Your task to perform on an android device: check the backup settings in the google photos Image 0: 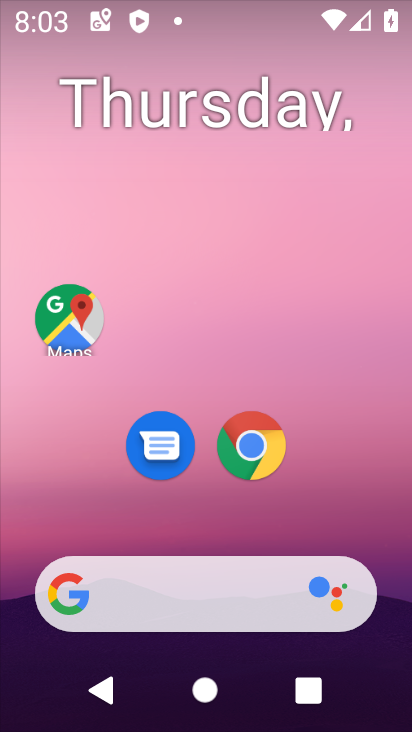
Step 0: drag from (349, 492) to (304, 41)
Your task to perform on an android device: check the backup settings in the google photos Image 1: 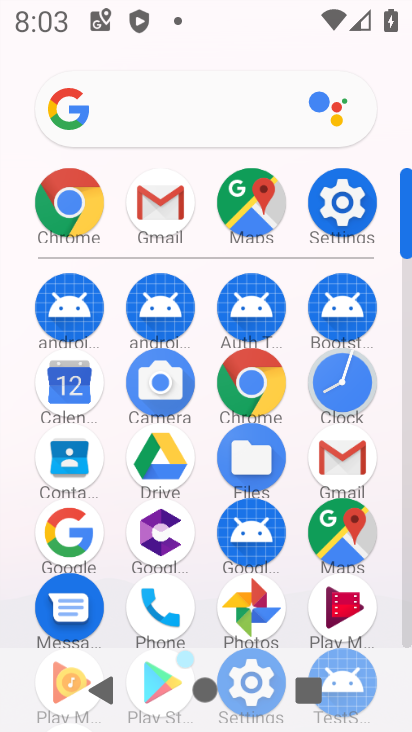
Step 1: click (253, 609)
Your task to perform on an android device: check the backup settings in the google photos Image 2: 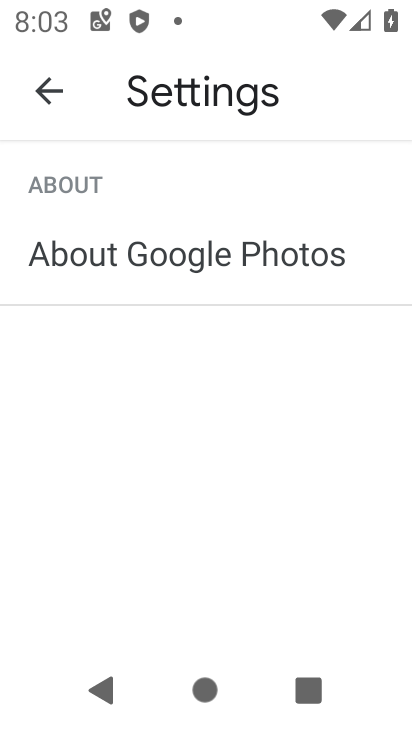
Step 2: click (56, 84)
Your task to perform on an android device: check the backup settings in the google photos Image 3: 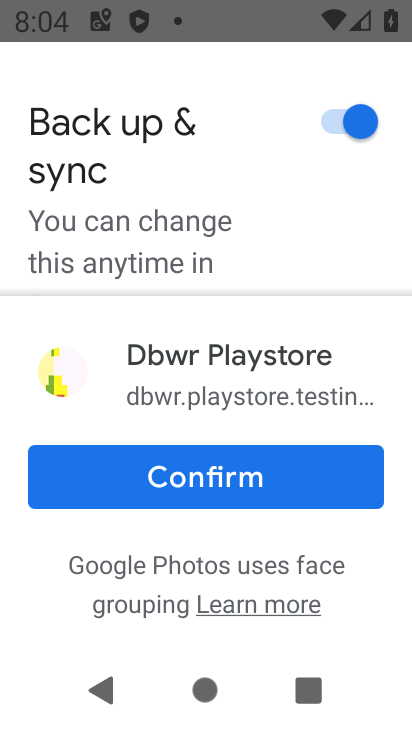
Step 3: click (110, 480)
Your task to perform on an android device: check the backup settings in the google photos Image 4: 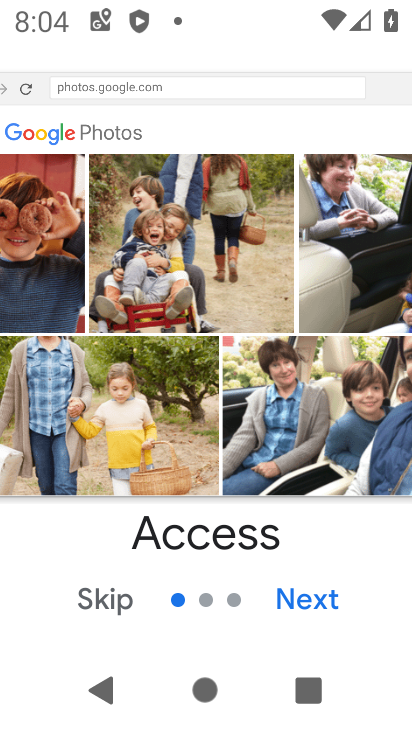
Step 4: click (295, 607)
Your task to perform on an android device: check the backup settings in the google photos Image 5: 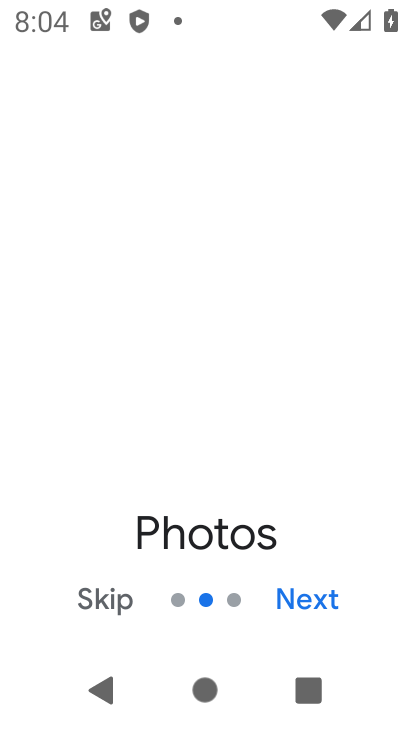
Step 5: click (295, 607)
Your task to perform on an android device: check the backup settings in the google photos Image 6: 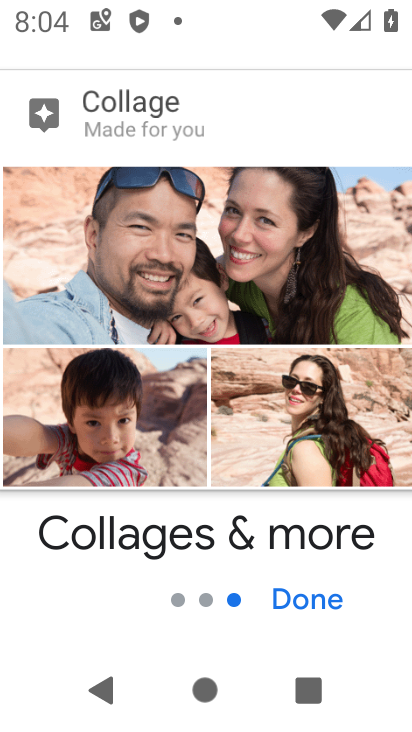
Step 6: click (296, 606)
Your task to perform on an android device: check the backup settings in the google photos Image 7: 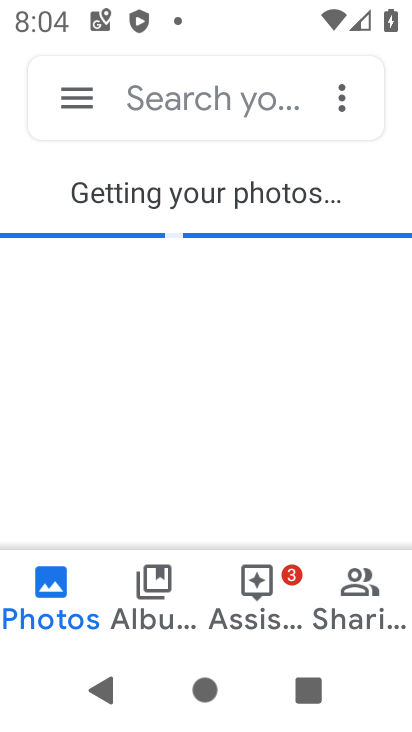
Step 7: click (75, 93)
Your task to perform on an android device: check the backup settings in the google photos Image 8: 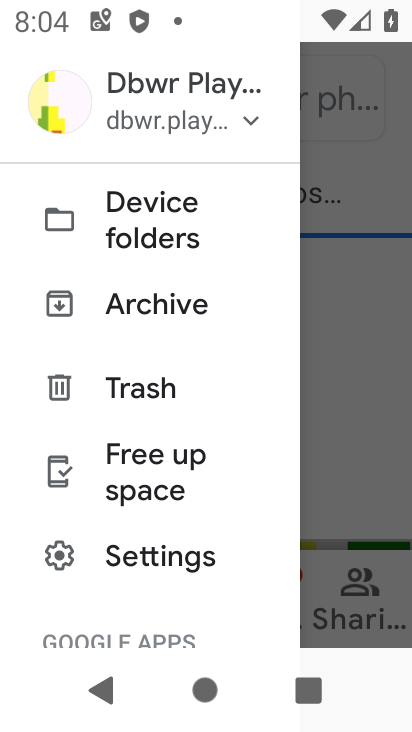
Step 8: click (171, 549)
Your task to perform on an android device: check the backup settings in the google photos Image 9: 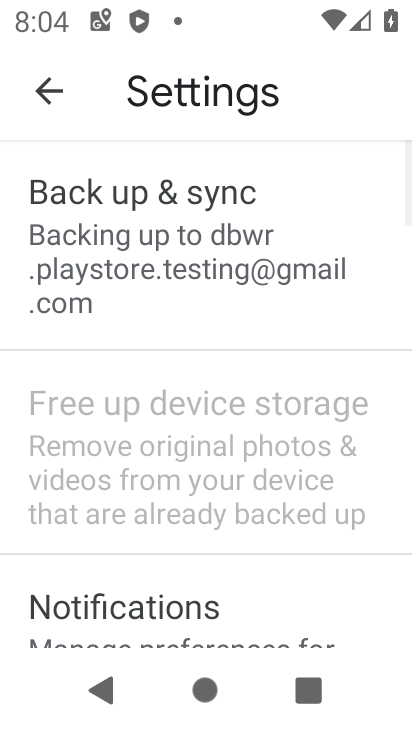
Step 9: click (175, 239)
Your task to perform on an android device: check the backup settings in the google photos Image 10: 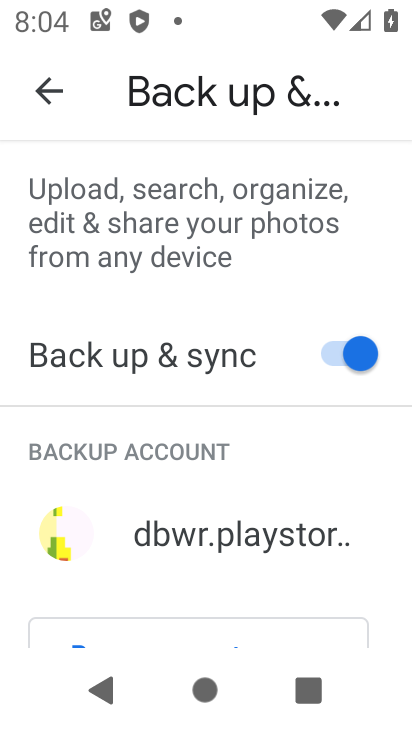
Step 10: task complete